Your task to perform on an android device: Clear the cart on target.com. Add "apple airpods" to the cart on target.com Image 0: 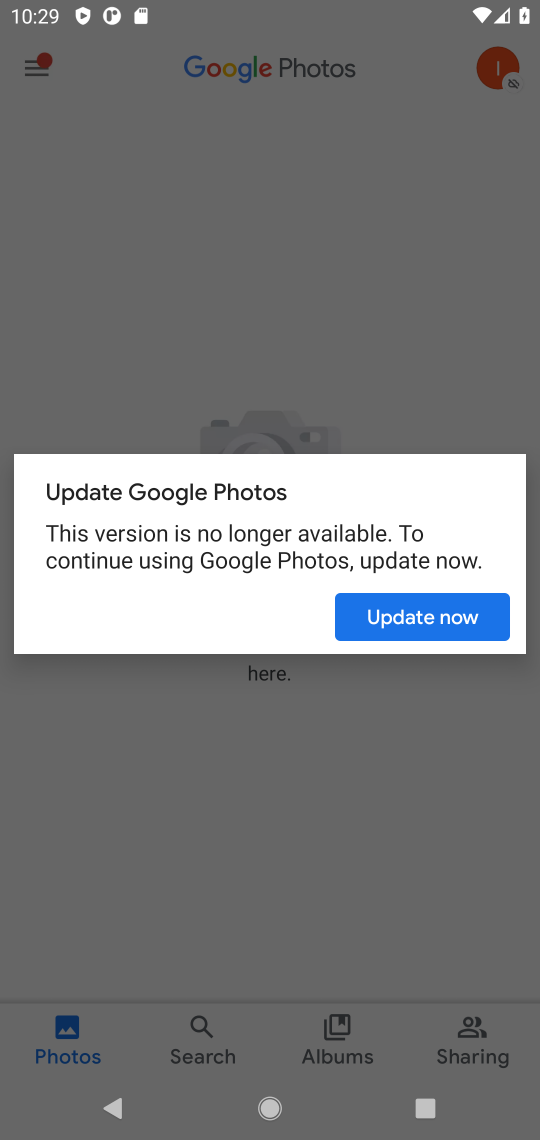
Step 0: press home button
Your task to perform on an android device: Clear the cart on target.com. Add "apple airpods" to the cart on target.com Image 1: 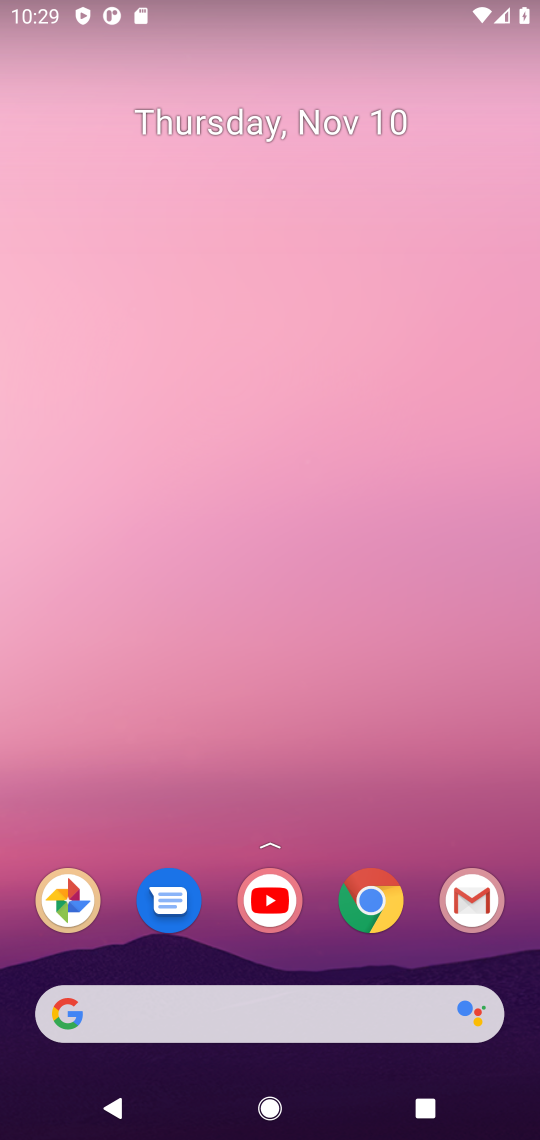
Step 1: click (373, 906)
Your task to perform on an android device: Clear the cart on target.com. Add "apple airpods" to the cart on target.com Image 2: 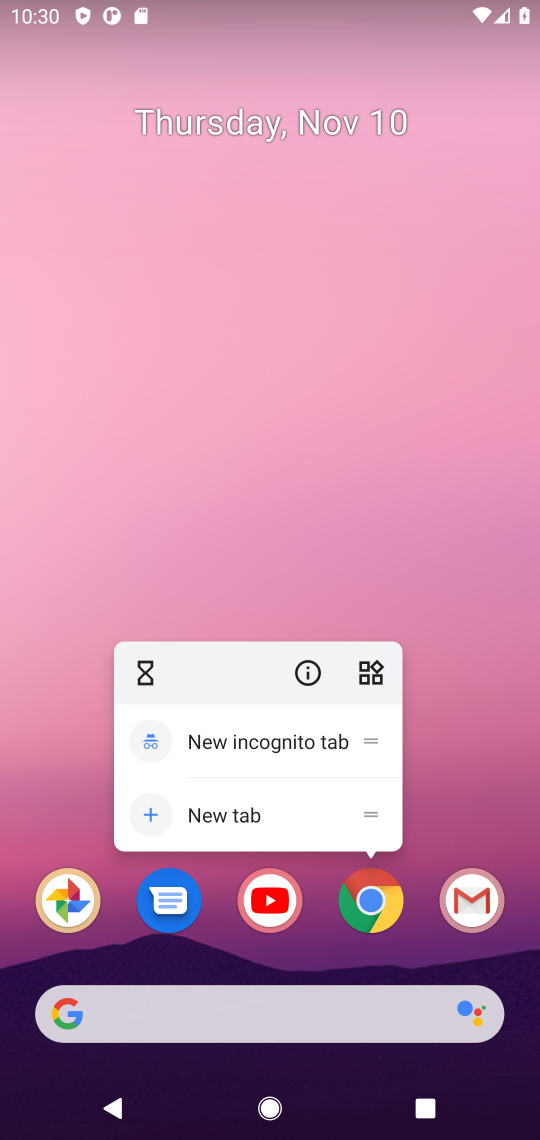
Step 2: click (373, 907)
Your task to perform on an android device: Clear the cart on target.com. Add "apple airpods" to the cart on target.com Image 3: 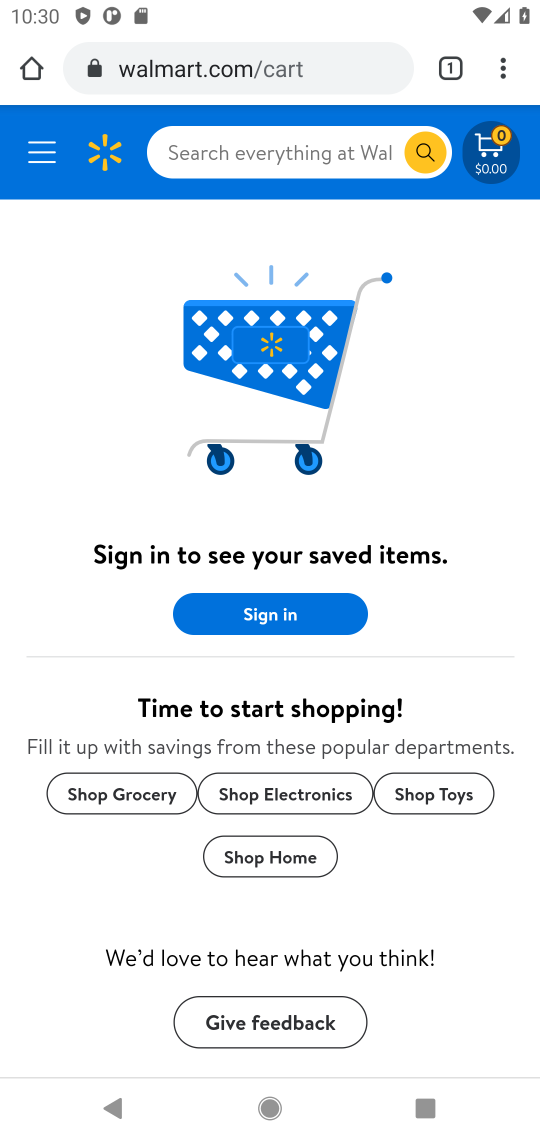
Step 3: click (337, 55)
Your task to perform on an android device: Clear the cart on target.com. Add "apple airpods" to the cart on target.com Image 4: 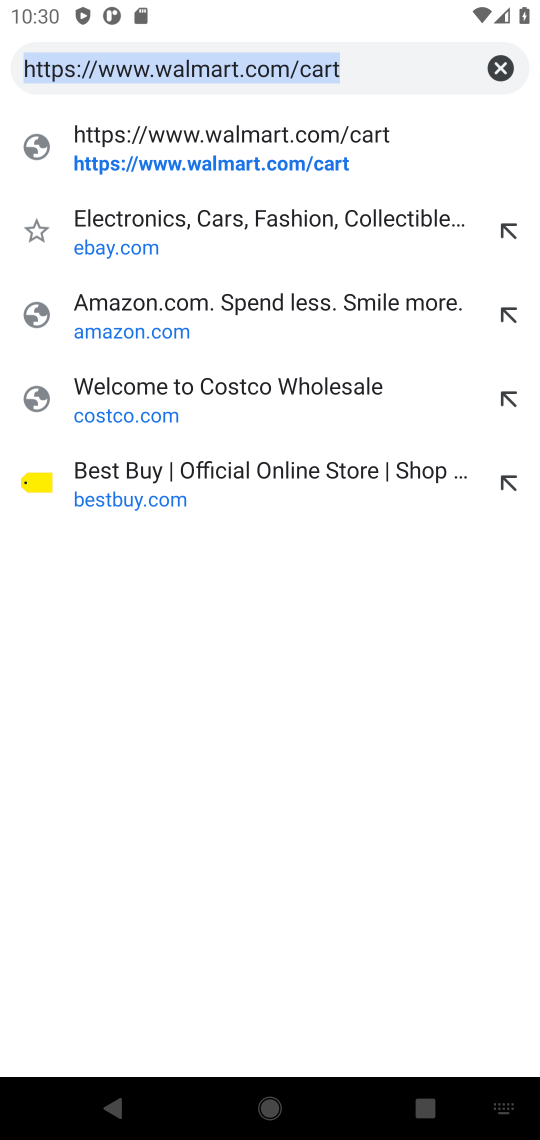
Step 4: click (501, 71)
Your task to perform on an android device: Clear the cart on target.com. Add "apple airpods" to the cart on target.com Image 5: 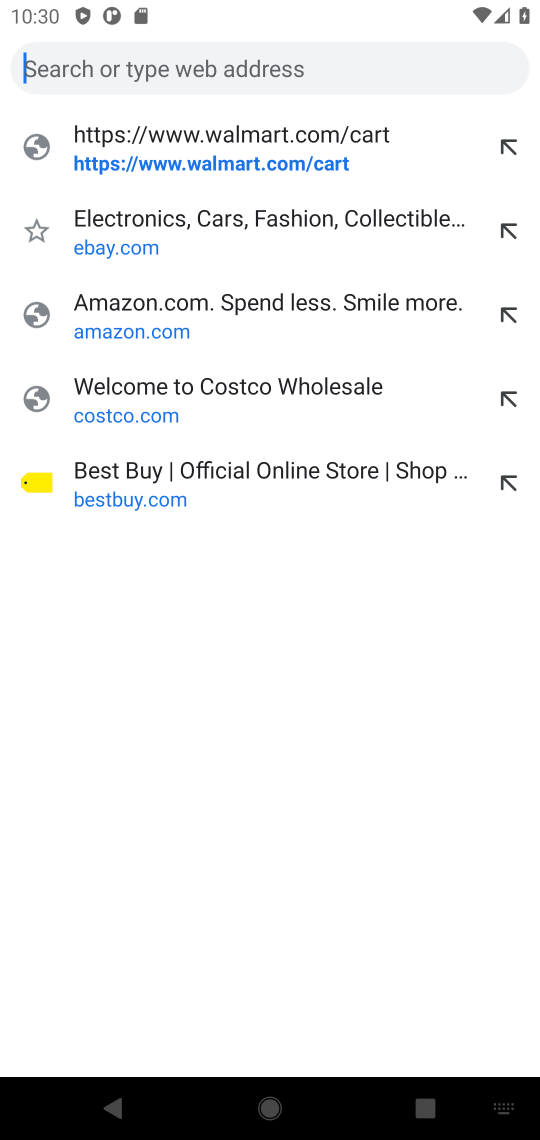
Step 5: press enter
Your task to perform on an android device: Clear the cart on target.com. Add "apple airpods" to the cart on target.com Image 6: 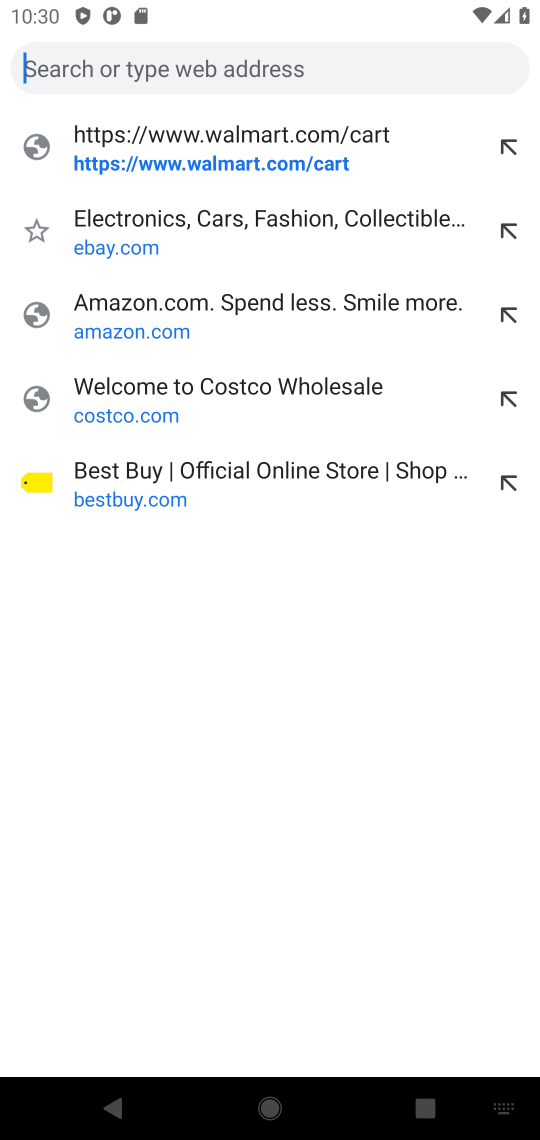
Step 6: type " target.com"
Your task to perform on an android device: Clear the cart on target.com. Add "apple airpods" to the cart on target.com Image 7: 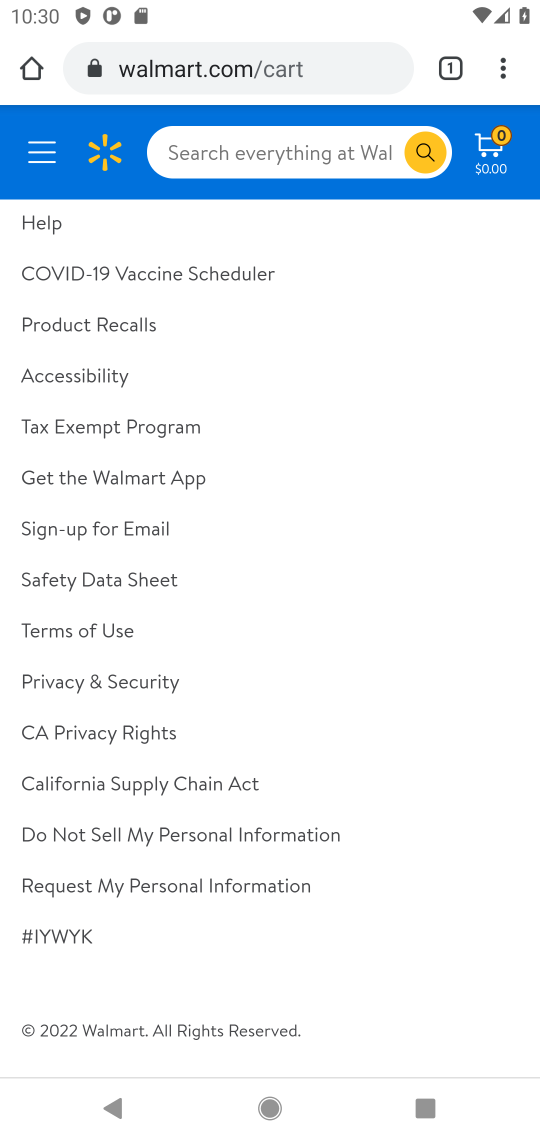
Step 7: click (254, 70)
Your task to perform on an android device: Clear the cart on target.com. Add "apple airpods" to the cart on target.com Image 8: 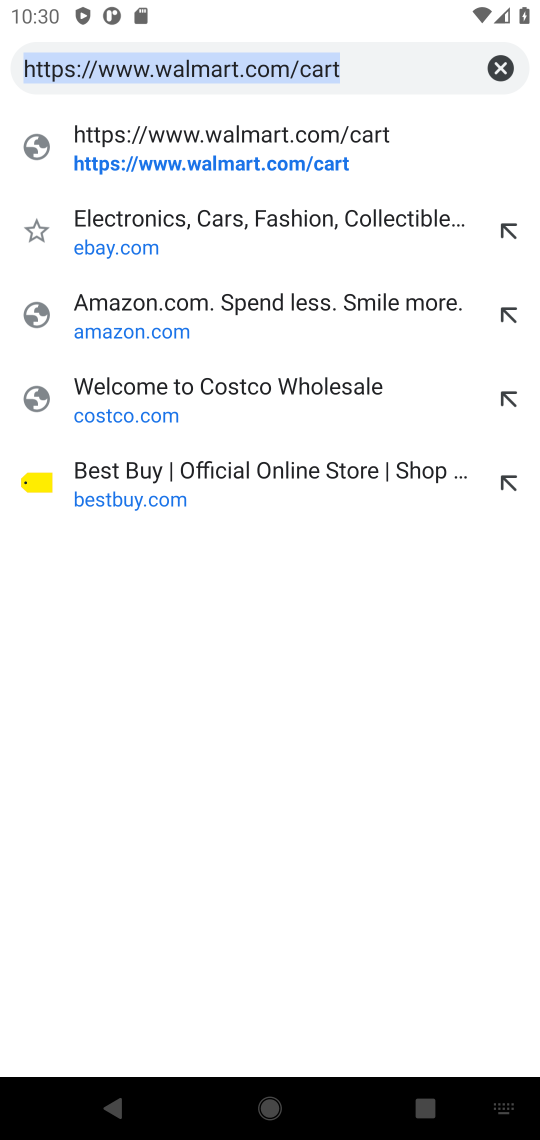
Step 8: click (510, 65)
Your task to perform on an android device: Clear the cart on target.com. Add "apple airpods" to the cart on target.com Image 9: 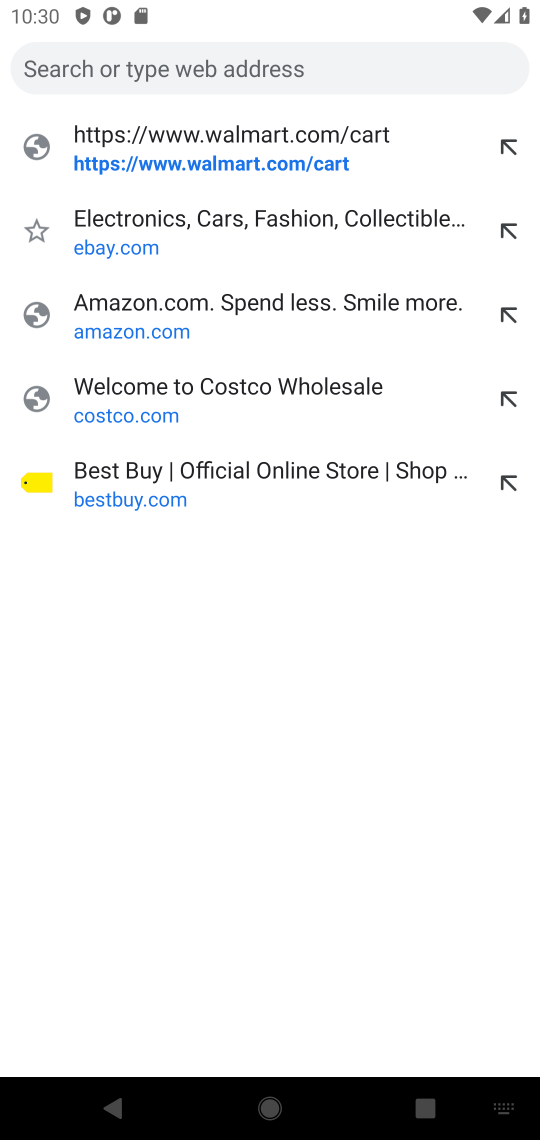
Step 9: type " target.com"
Your task to perform on an android device: Clear the cart on target.com. Add "apple airpods" to the cart on target.com Image 10: 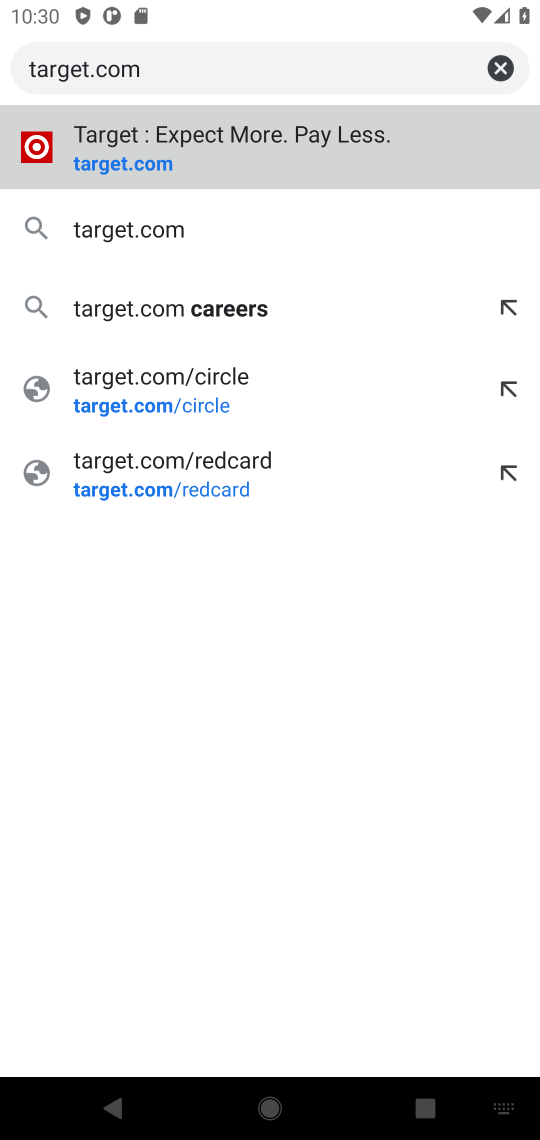
Step 10: press enter
Your task to perform on an android device: Clear the cart on target.com. Add "apple airpods" to the cart on target.com Image 11: 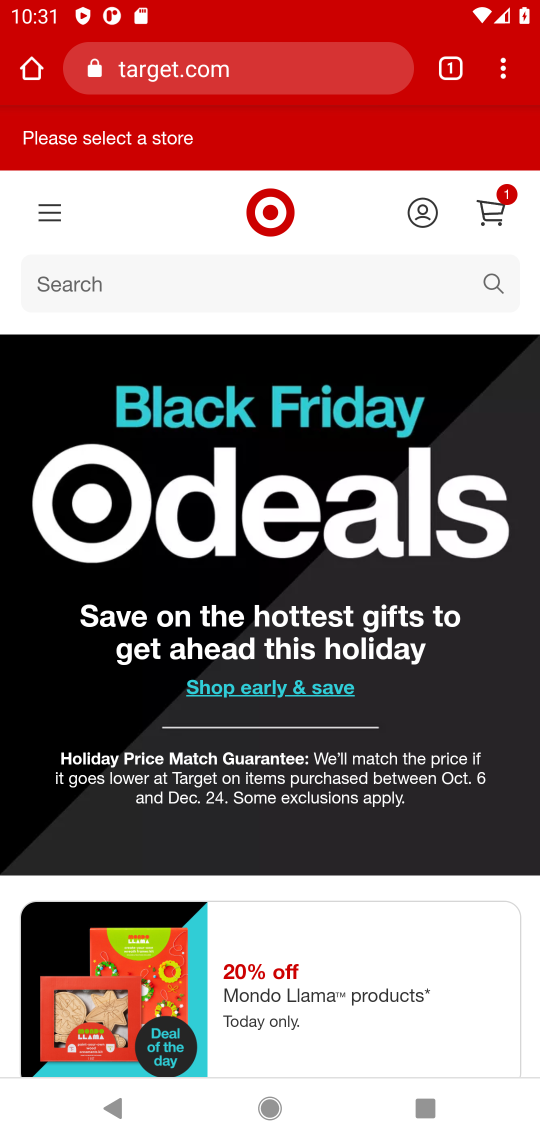
Step 11: click (102, 276)
Your task to perform on an android device: Clear the cart on target.com. Add "apple airpods" to the cart on target.com Image 12: 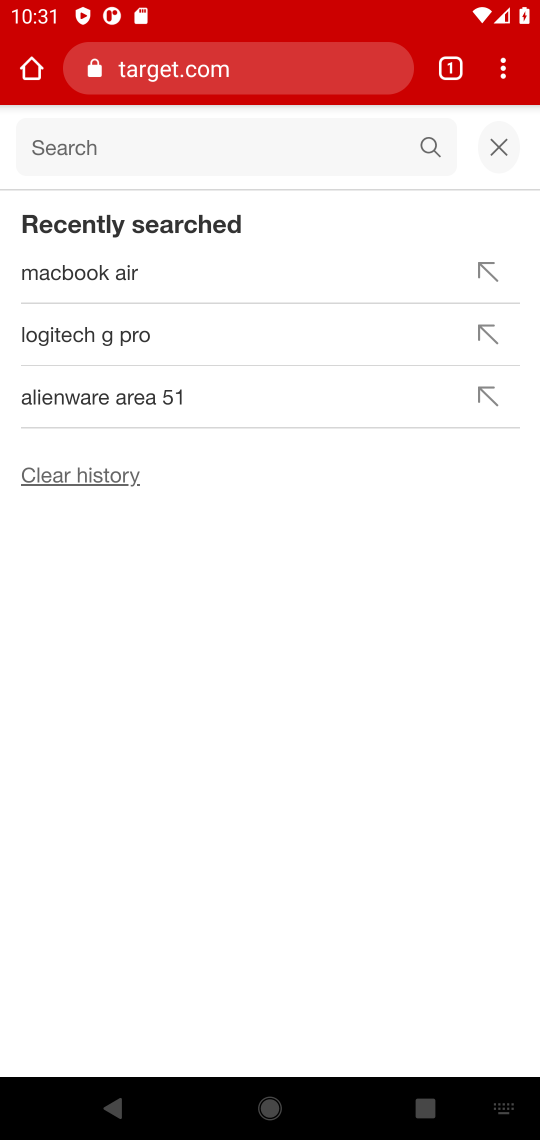
Step 12: type "apple airpods"
Your task to perform on an android device: Clear the cart on target.com. Add "apple airpods" to the cart on target.com Image 13: 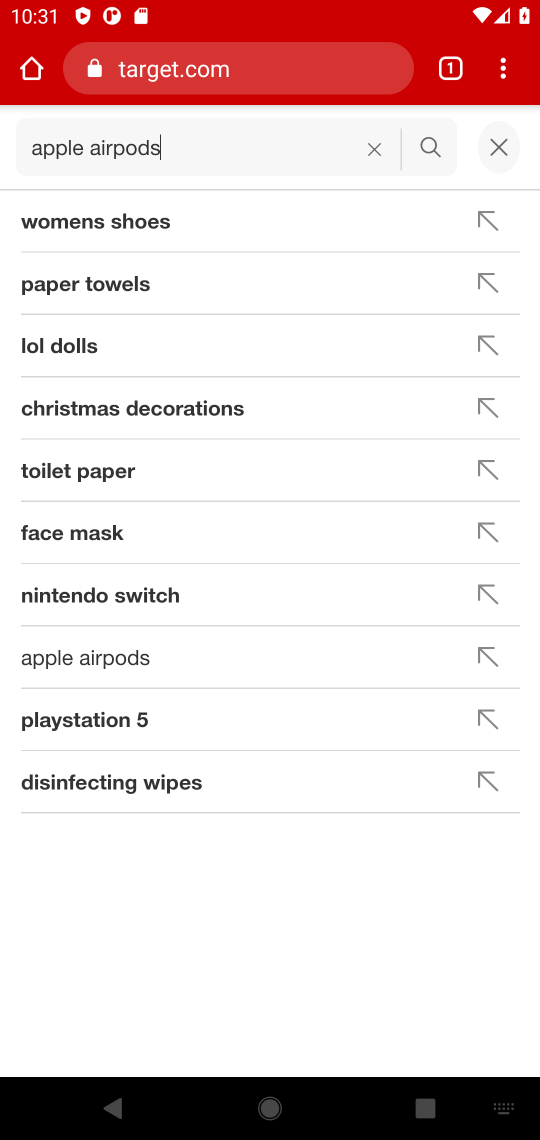
Step 13: press enter
Your task to perform on an android device: Clear the cart on target.com. Add "apple airpods" to the cart on target.com Image 14: 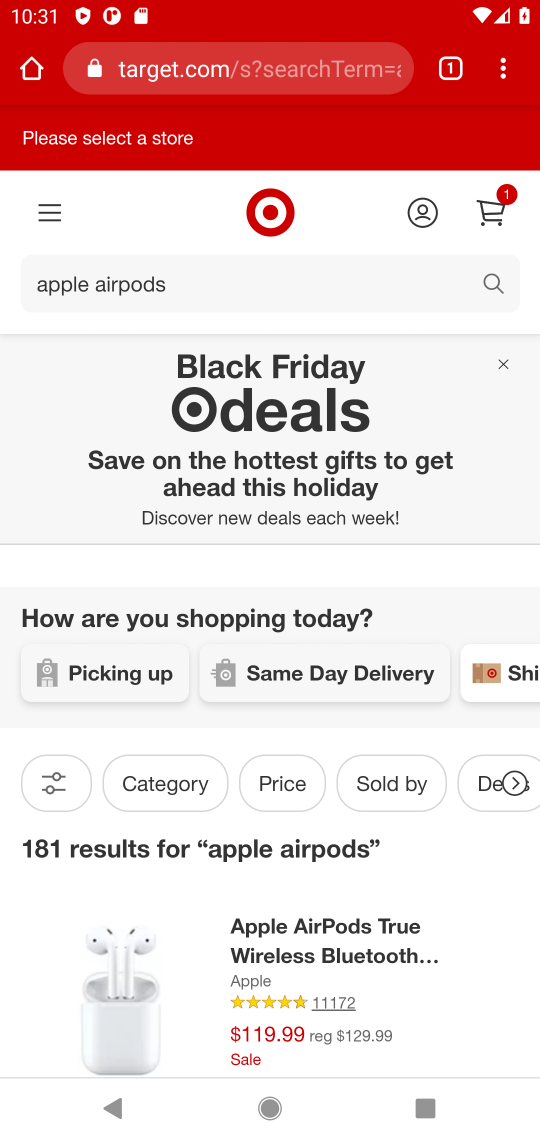
Step 14: drag from (215, 904) to (459, 386)
Your task to perform on an android device: Clear the cart on target.com. Add "apple airpods" to the cart on target.com Image 15: 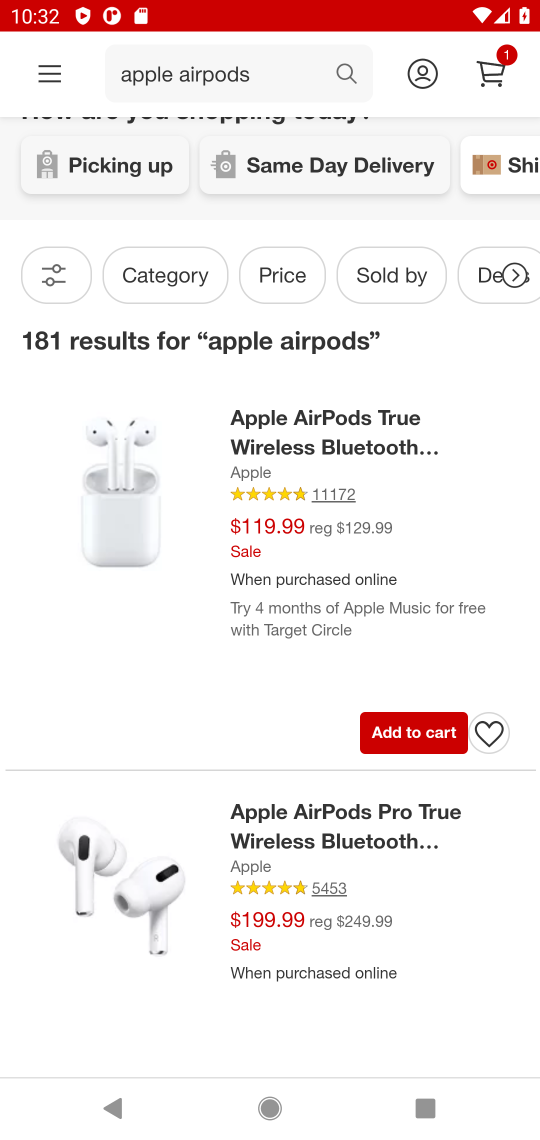
Step 15: click (418, 731)
Your task to perform on an android device: Clear the cart on target.com. Add "apple airpods" to the cart on target.com Image 16: 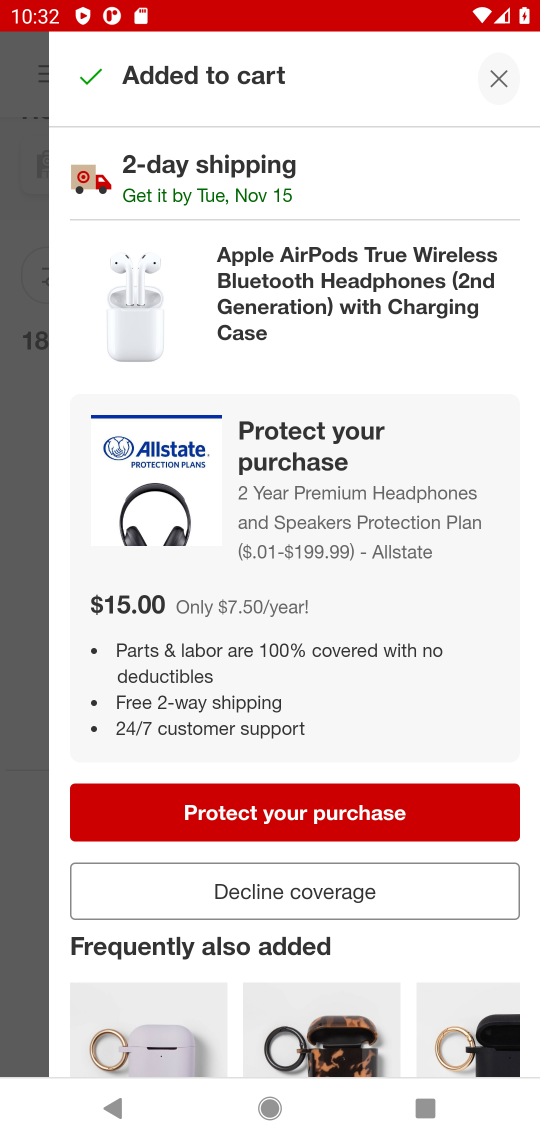
Step 16: click (309, 891)
Your task to perform on an android device: Clear the cart on target.com. Add "apple airpods" to the cart on target.com Image 17: 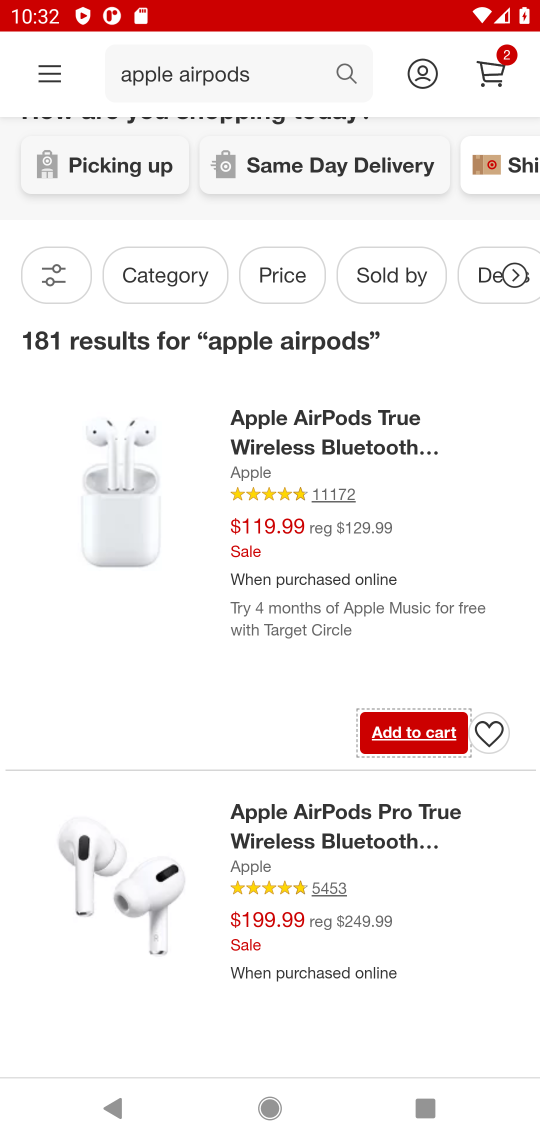
Step 17: click (492, 63)
Your task to perform on an android device: Clear the cart on target.com. Add "apple airpods" to the cart on target.com Image 18: 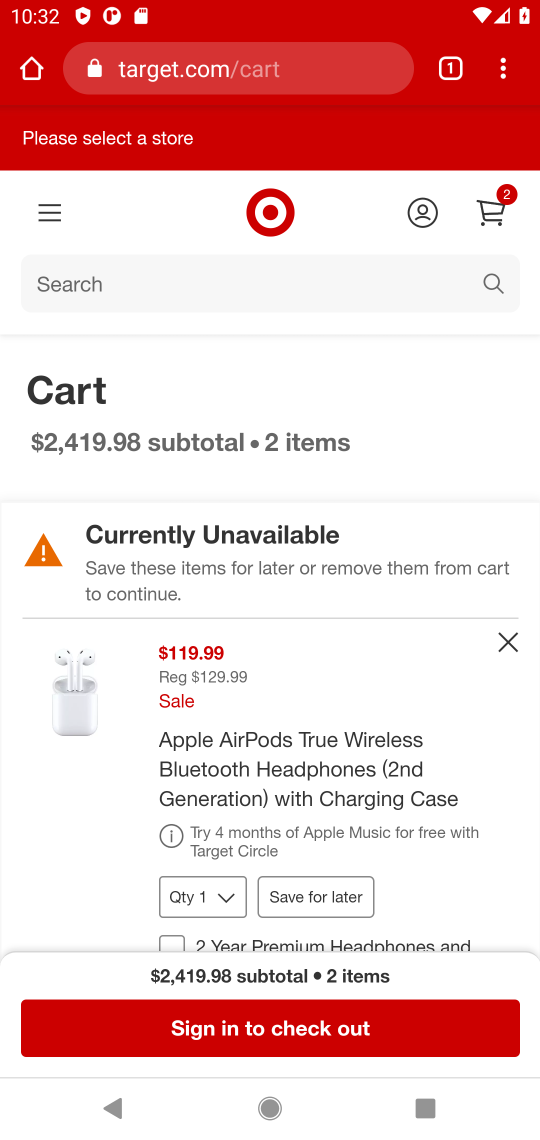
Step 18: task complete